Your task to perform on an android device: What's the weather? Image 0: 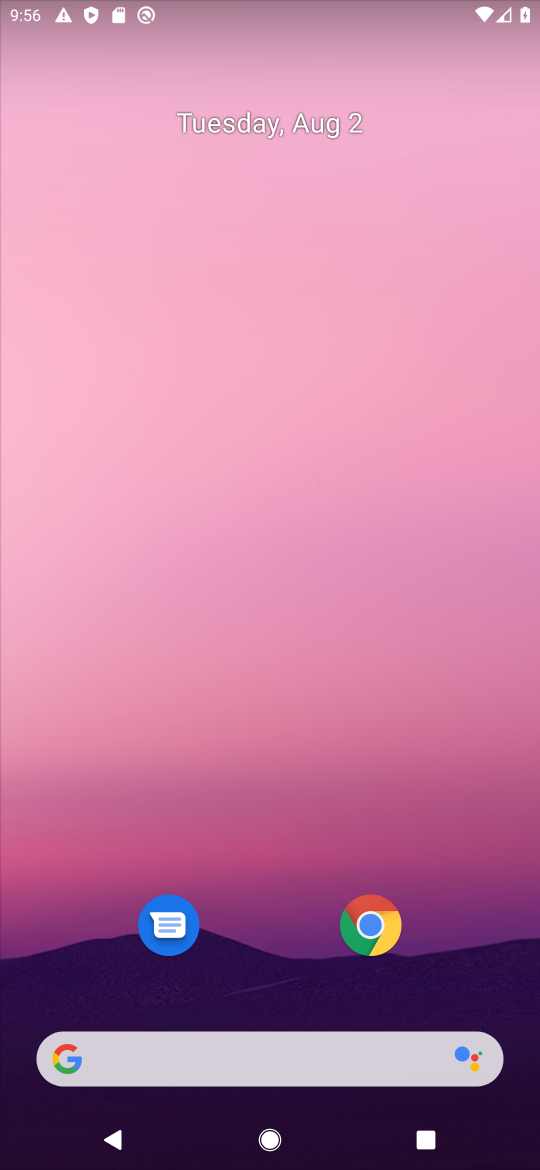
Step 0: click (366, 931)
Your task to perform on an android device: What's the weather? Image 1: 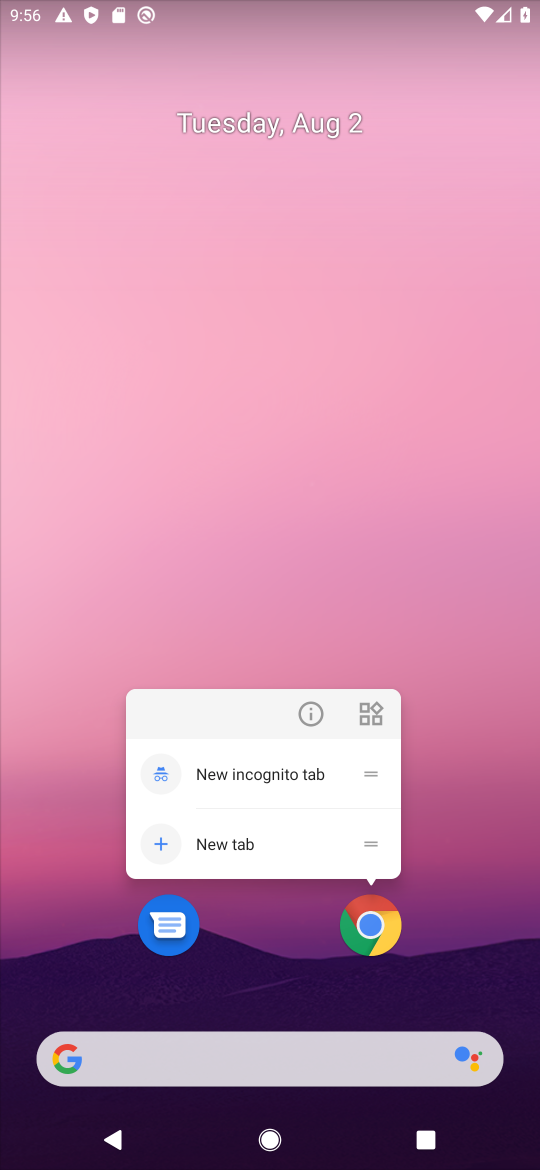
Step 1: click (366, 931)
Your task to perform on an android device: What's the weather? Image 2: 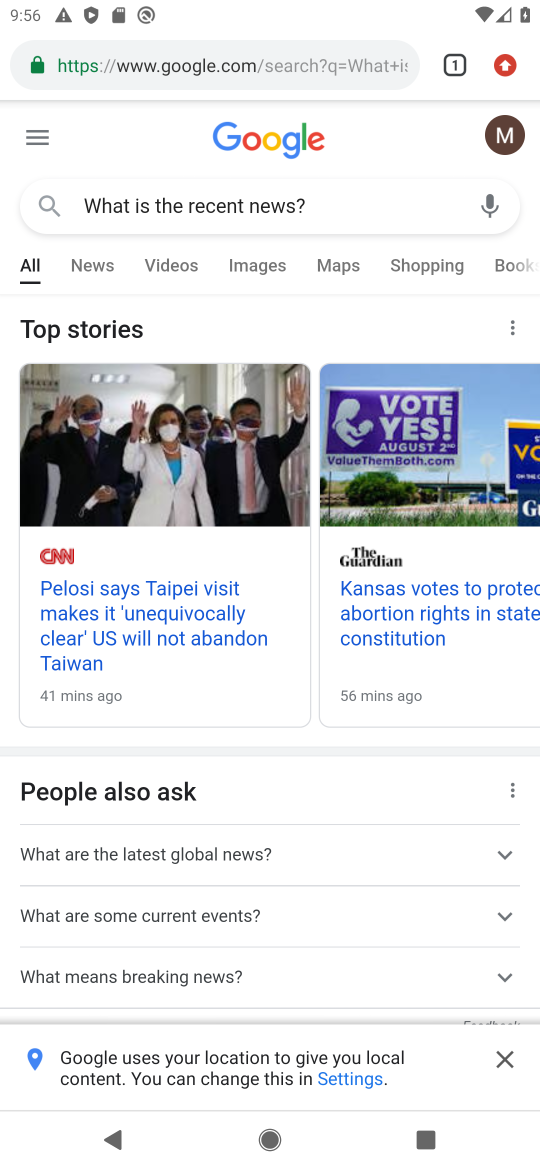
Step 2: click (319, 69)
Your task to perform on an android device: What's the weather? Image 3: 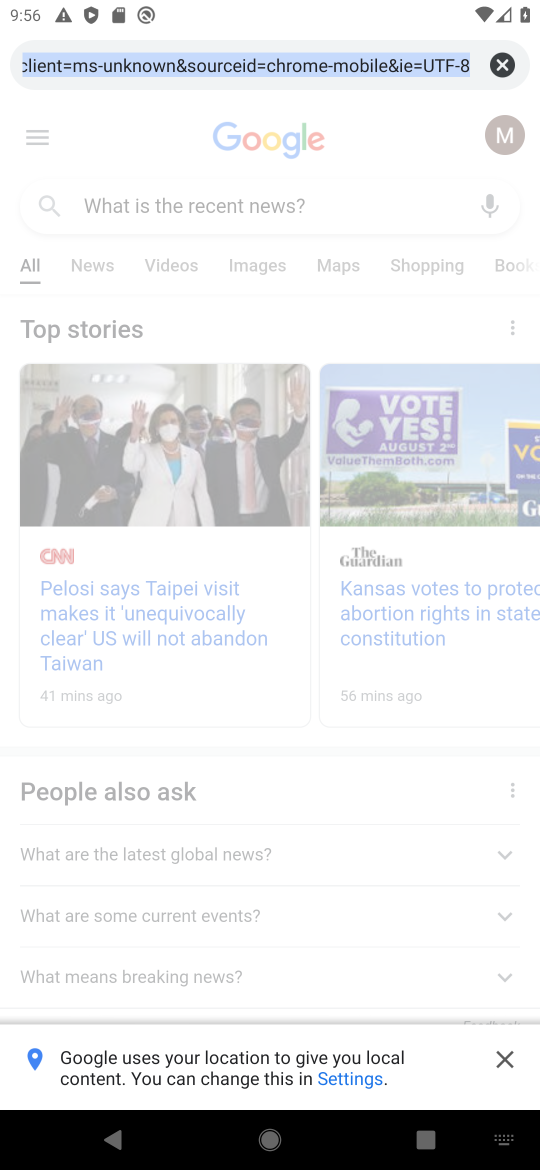
Step 3: type "What's the weather?"
Your task to perform on an android device: What's the weather? Image 4: 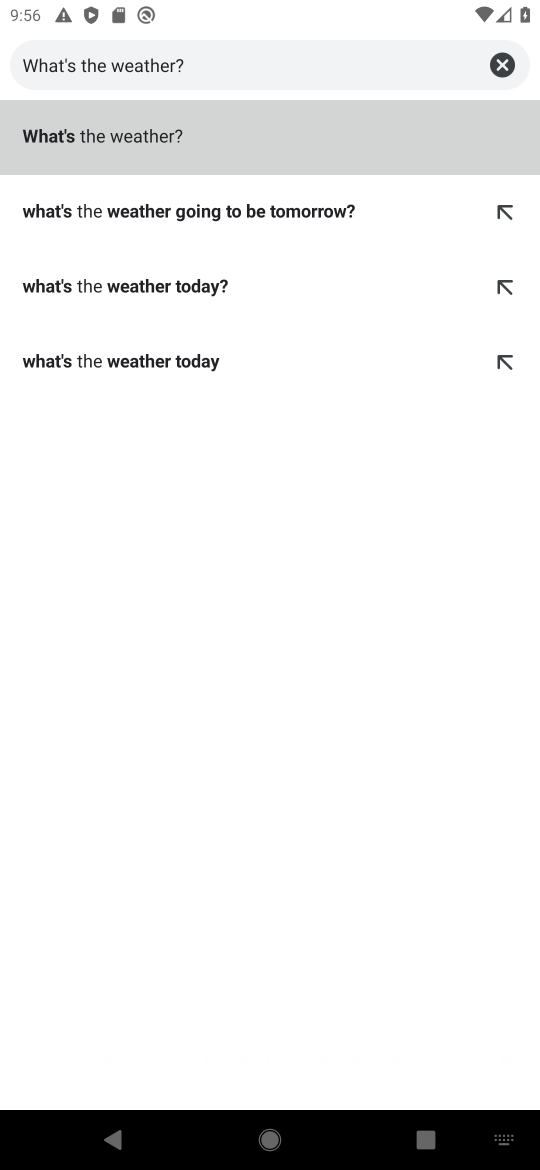
Step 4: click (269, 143)
Your task to perform on an android device: What's the weather? Image 5: 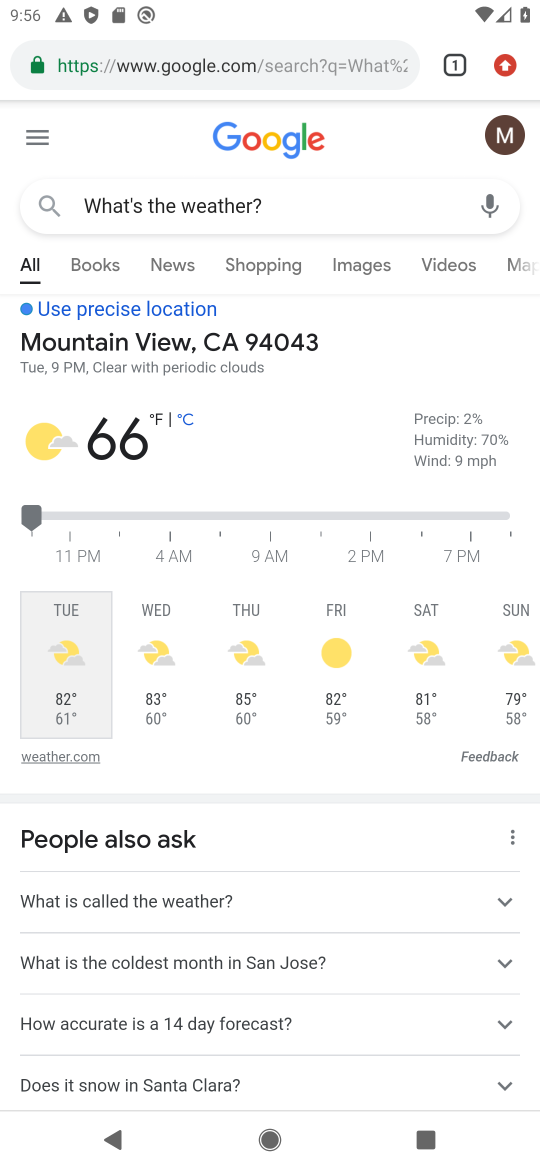
Step 5: task complete